Your task to perform on an android device: Open Reddit.com Image 0: 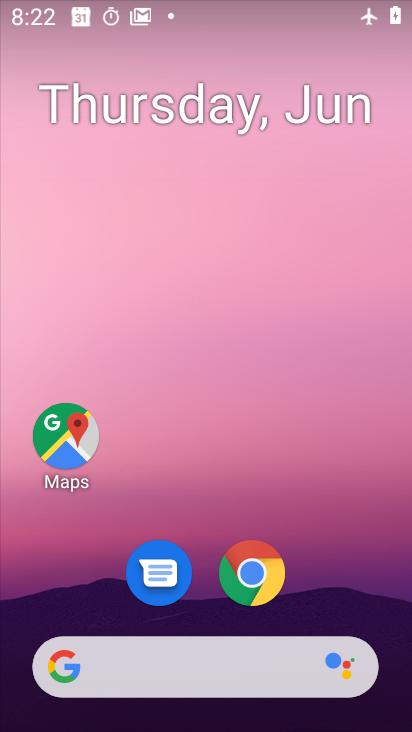
Step 0: click (252, 559)
Your task to perform on an android device: Open Reddit.com Image 1: 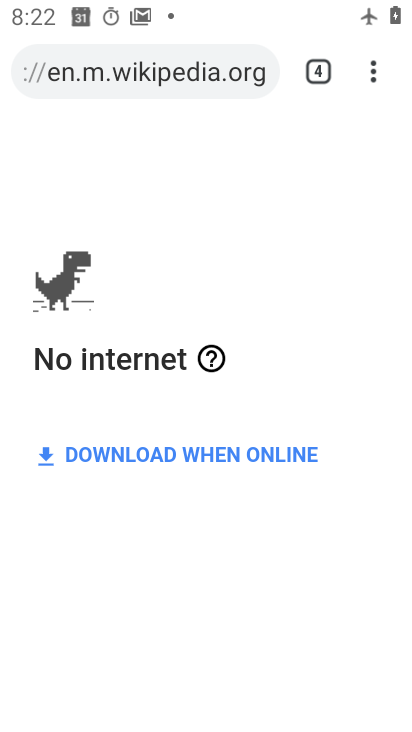
Step 1: click (403, 70)
Your task to perform on an android device: Open Reddit.com Image 2: 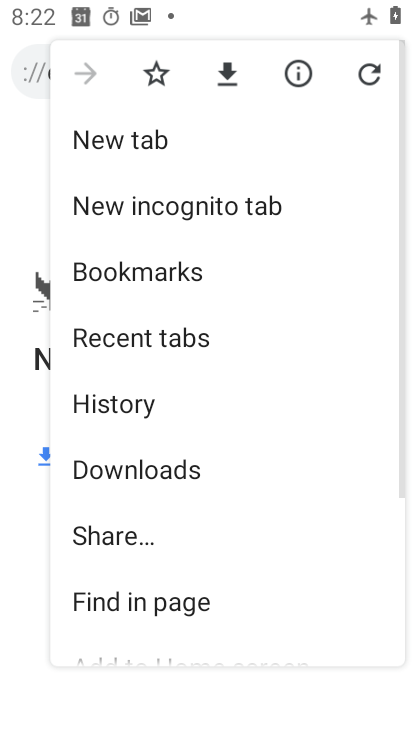
Step 2: click (114, 149)
Your task to perform on an android device: Open Reddit.com Image 3: 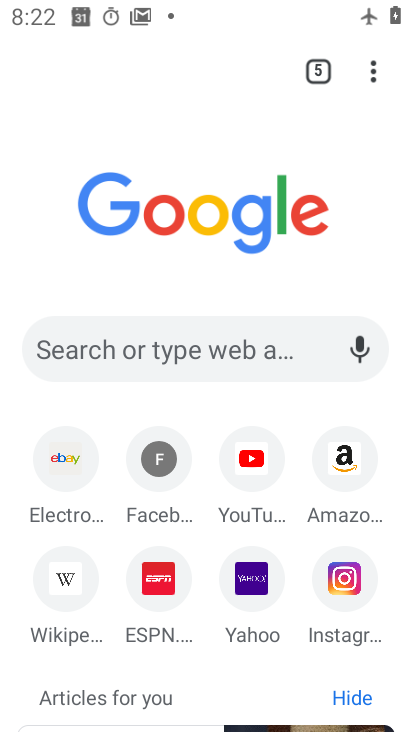
Step 3: click (136, 350)
Your task to perform on an android device: Open Reddit.com Image 4: 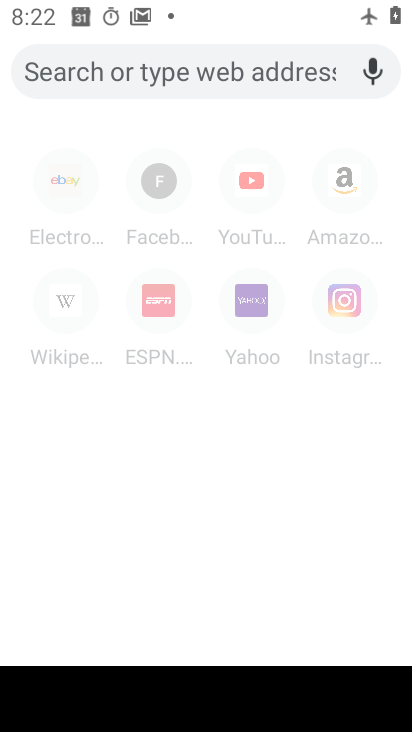
Step 4: type "Reddit.com"
Your task to perform on an android device: Open Reddit.com Image 5: 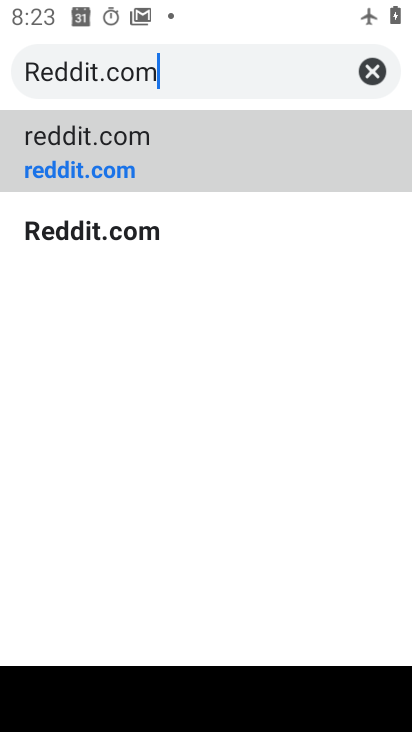
Step 5: click (122, 154)
Your task to perform on an android device: Open Reddit.com Image 6: 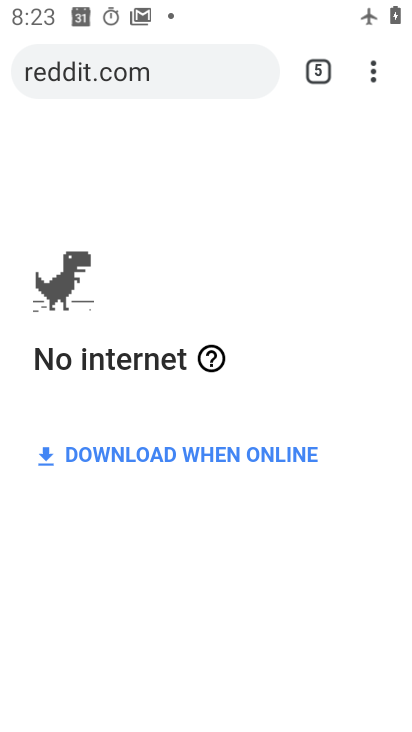
Step 6: task complete